Your task to perform on an android device: Open the Play Movies app and select the watchlist tab. Image 0: 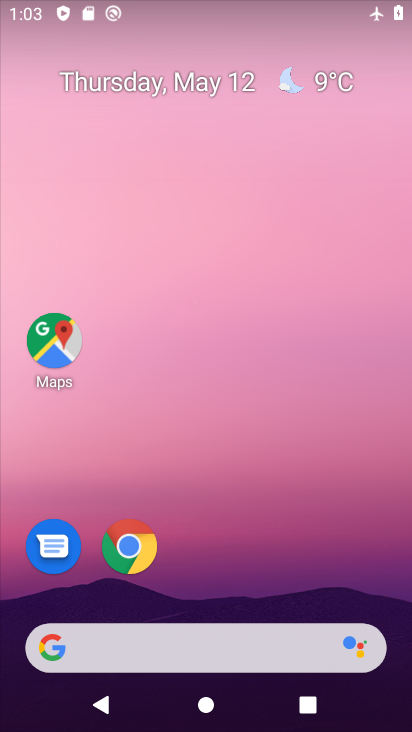
Step 0: drag from (191, 667) to (352, 110)
Your task to perform on an android device: Open the Play Movies app and select the watchlist tab. Image 1: 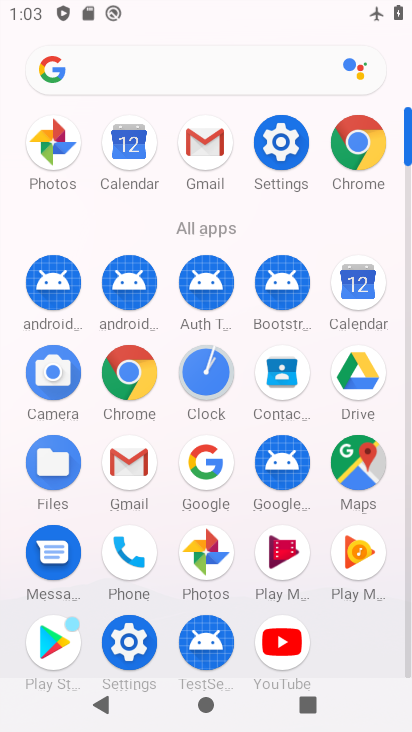
Step 1: click (289, 547)
Your task to perform on an android device: Open the Play Movies app and select the watchlist tab. Image 2: 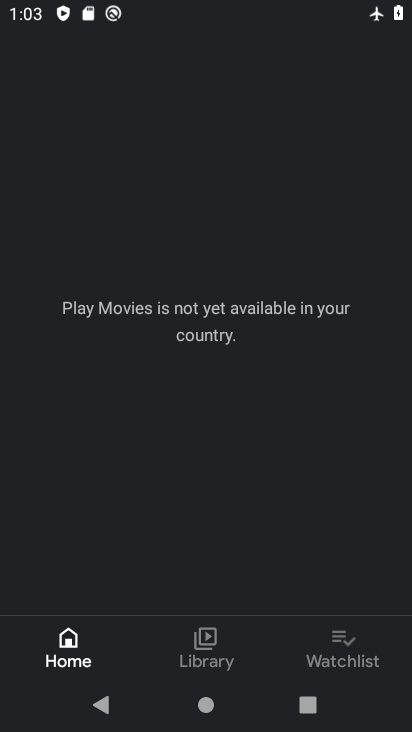
Step 2: click (338, 649)
Your task to perform on an android device: Open the Play Movies app and select the watchlist tab. Image 3: 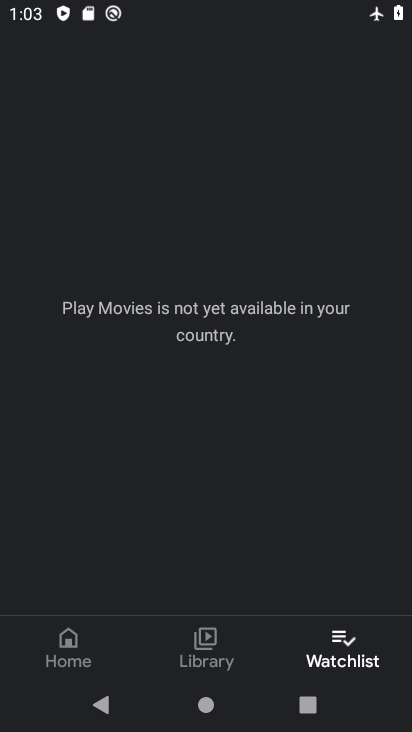
Step 3: task complete